Your task to perform on an android device: check battery use Image 0: 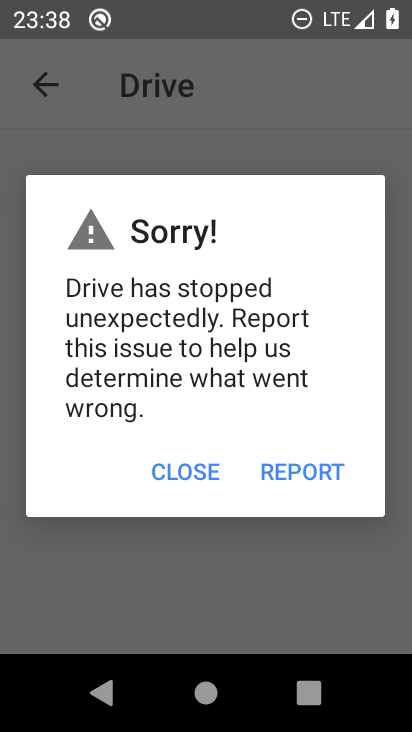
Step 0: press home button
Your task to perform on an android device: check battery use Image 1: 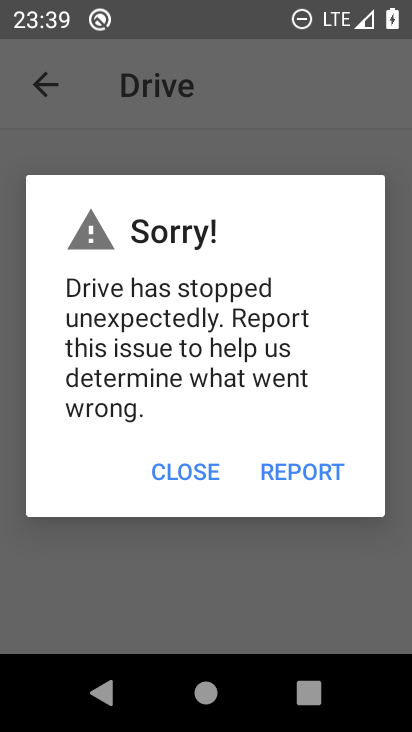
Step 1: press home button
Your task to perform on an android device: check battery use Image 2: 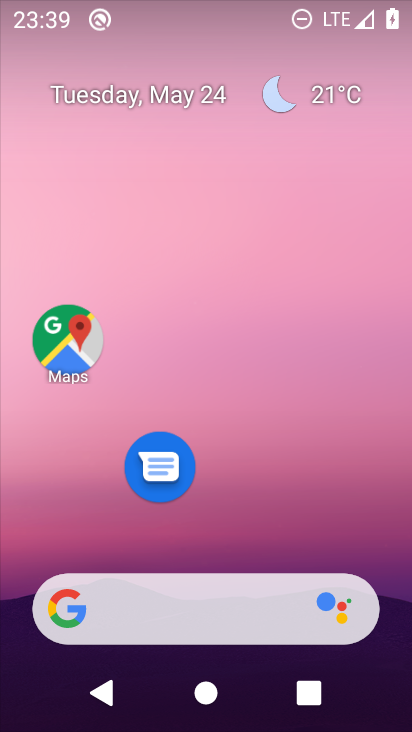
Step 2: drag from (216, 607) to (220, 134)
Your task to perform on an android device: check battery use Image 3: 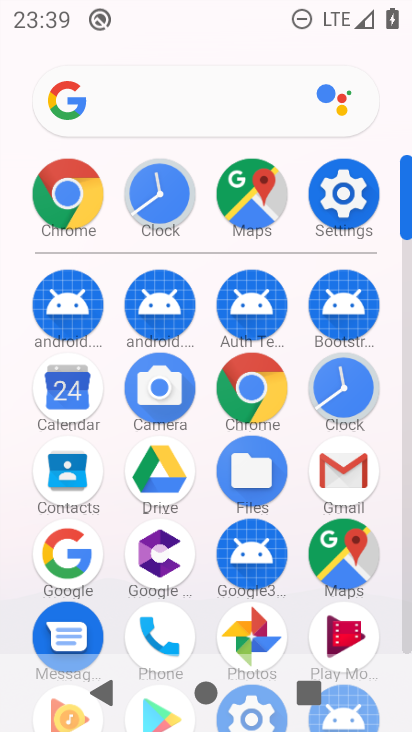
Step 3: click (335, 168)
Your task to perform on an android device: check battery use Image 4: 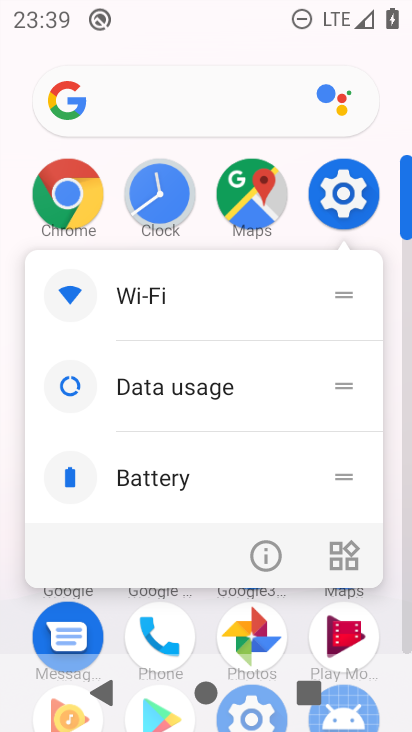
Step 4: click (261, 548)
Your task to perform on an android device: check battery use Image 5: 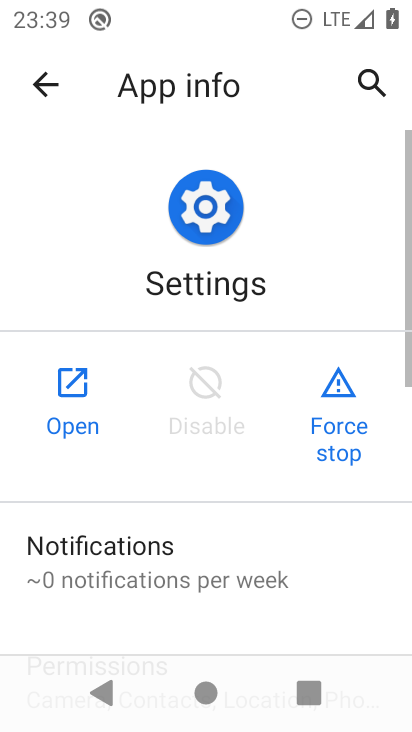
Step 5: click (83, 410)
Your task to perform on an android device: check battery use Image 6: 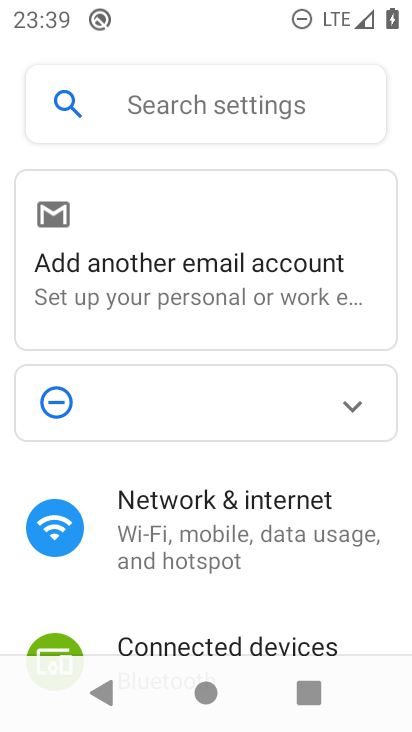
Step 6: drag from (232, 538) to (289, 44)
Your task to perform on an android device: check battery use Image 7: 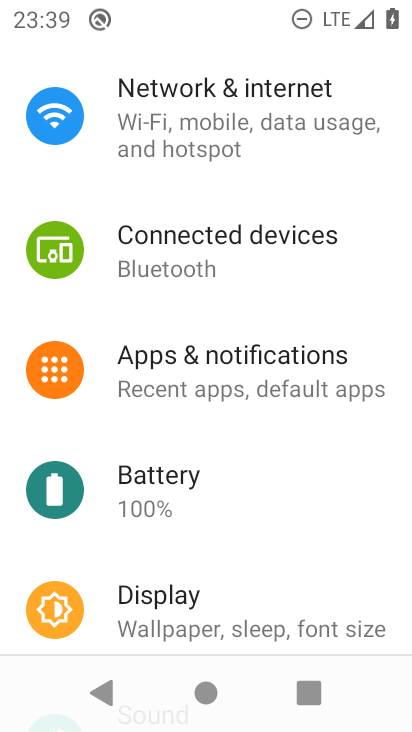
Step 7: drag from (214, 512) to (254, 273)
Your task to perform on an android device: check battery use Image 8: 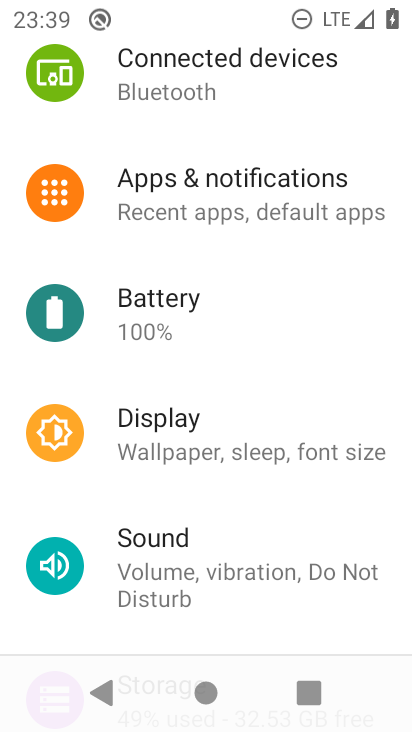
Step 8: click (188, 289)
Your task to perform on an android device: check battery use Image 9: 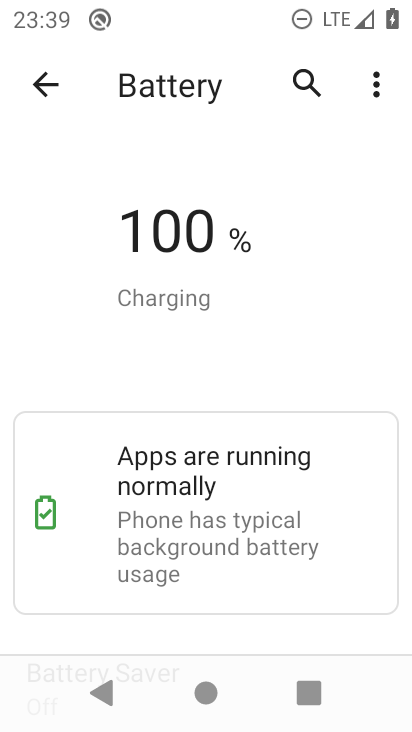
Step 9: click (370, 75)
Your task to perform on an android device: check battery use Image 10: 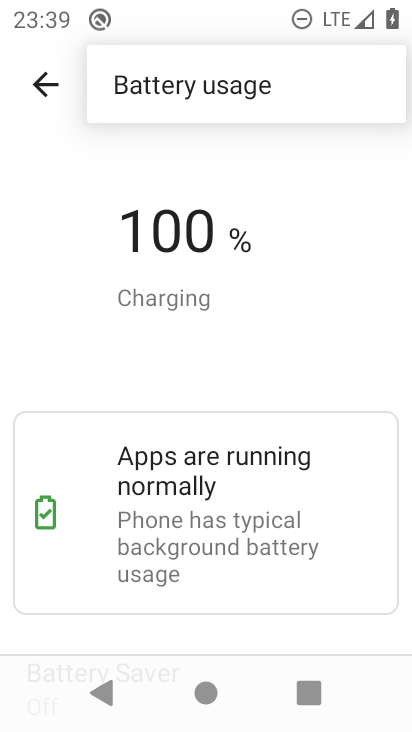
Step 10: click (320, 98)
Your task to perform on an android device: check battery use Image 11: 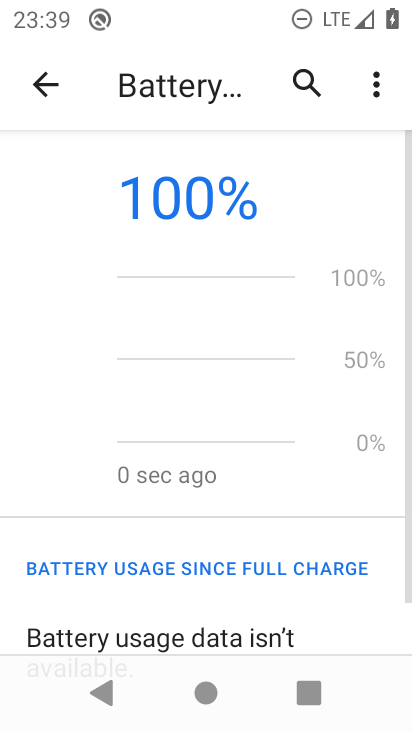
Step 11: task complete